Your task to perform on an android device: turn pop-ups off in chrome Image 0: 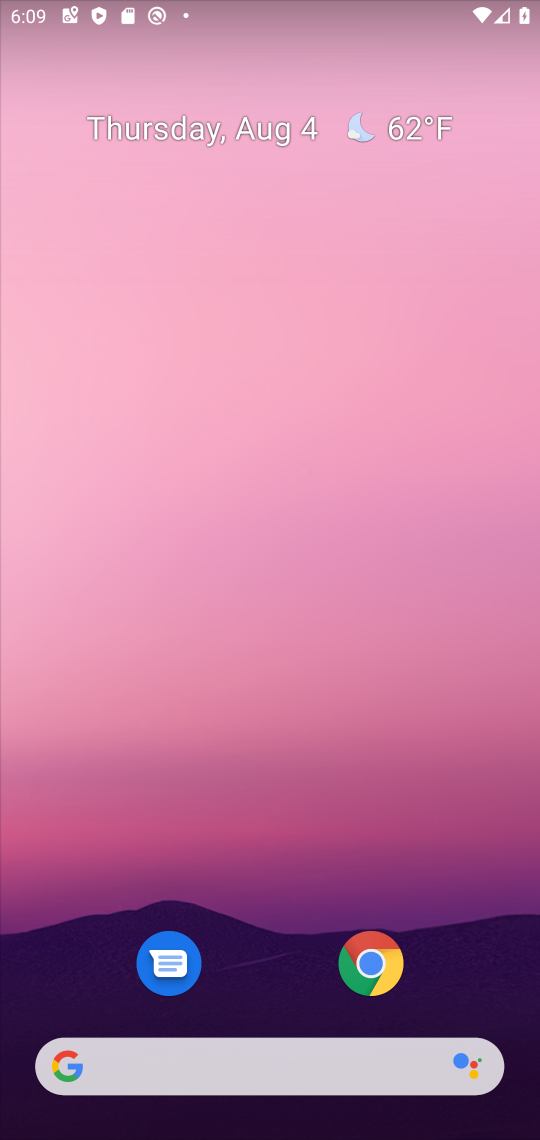
Step 0: click (378, 956)
Your task to perform on an android device: turn pop-ups off in chrome Image 1: 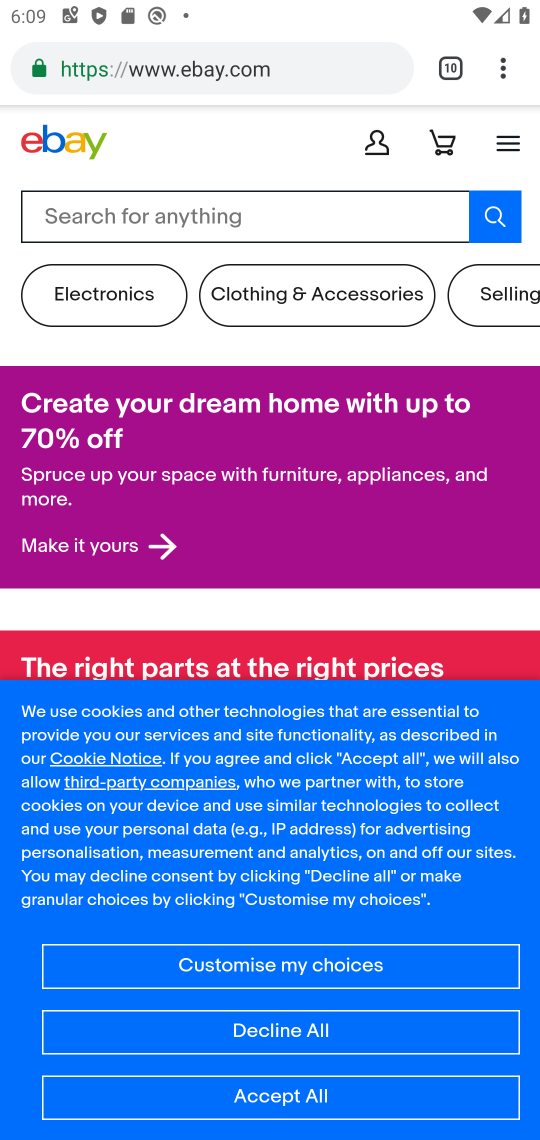
Step 1: click (510, 47)
Your task to perform on an android device: turn pop-ups off in chrome Image 2: 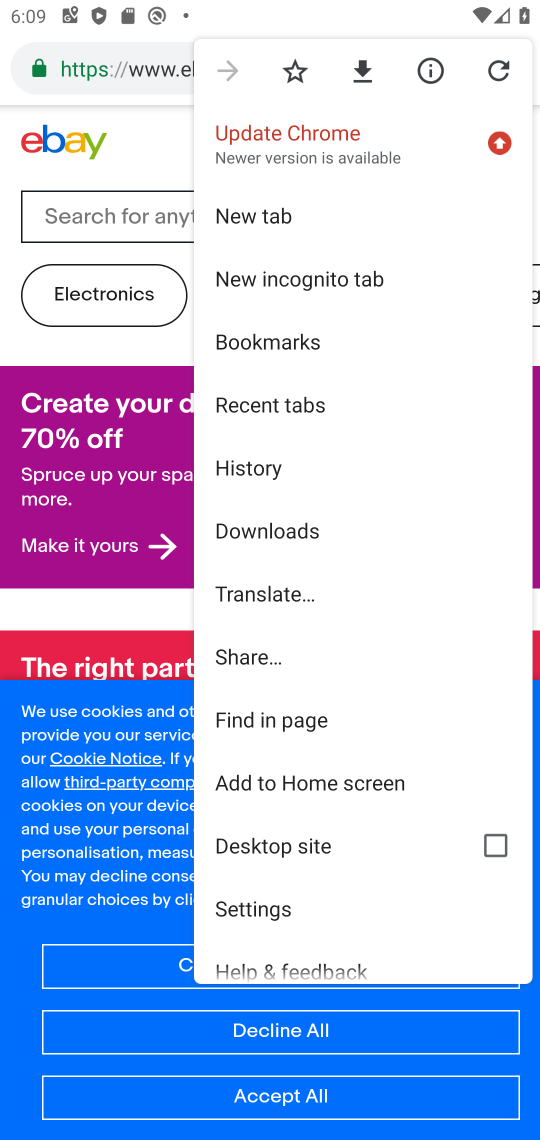
Step 2: click (264, 907)
Your task to perform on an android device: turn pop-ups off in chrome Image 3: 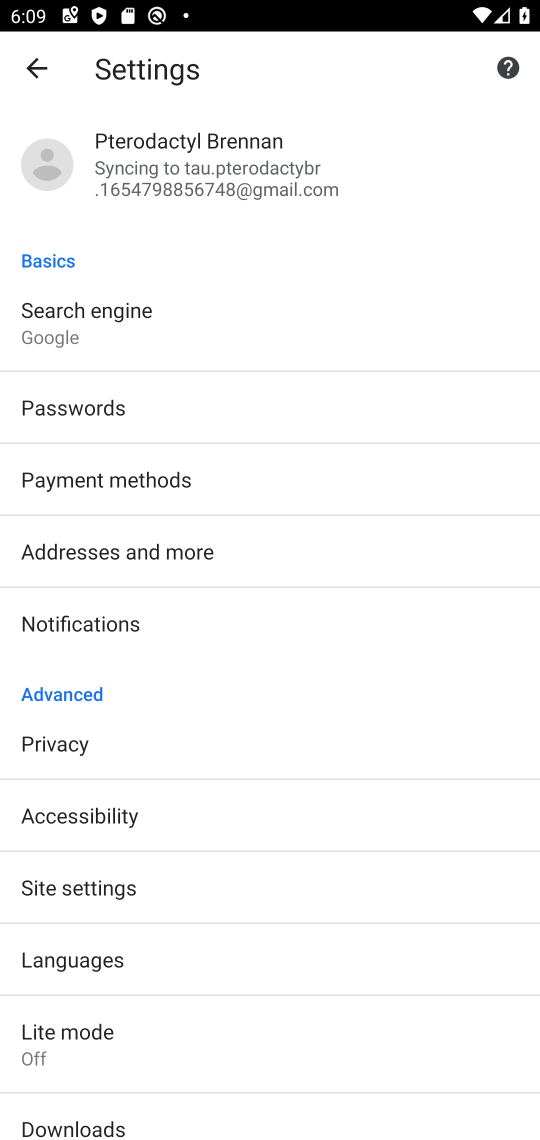
Step 3: drag from (232, 966) to (179, 307)
Your task to perform on an android device: turn pop-ups off in chrome Image 4: 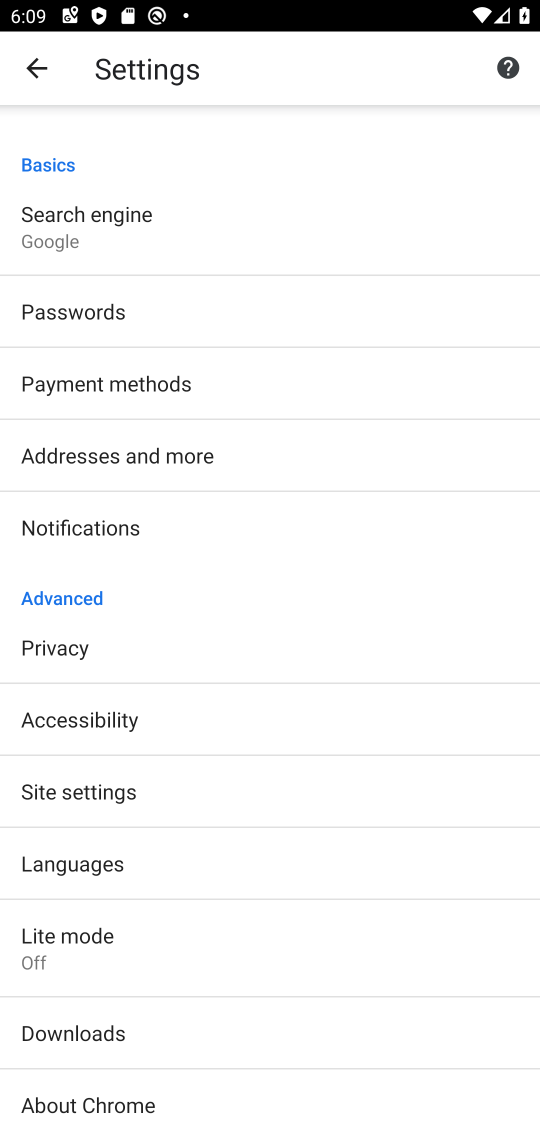
Step 4: click (105, 790)
Your task to perform on an android device: turn pop-ups off in chrome Image 5: 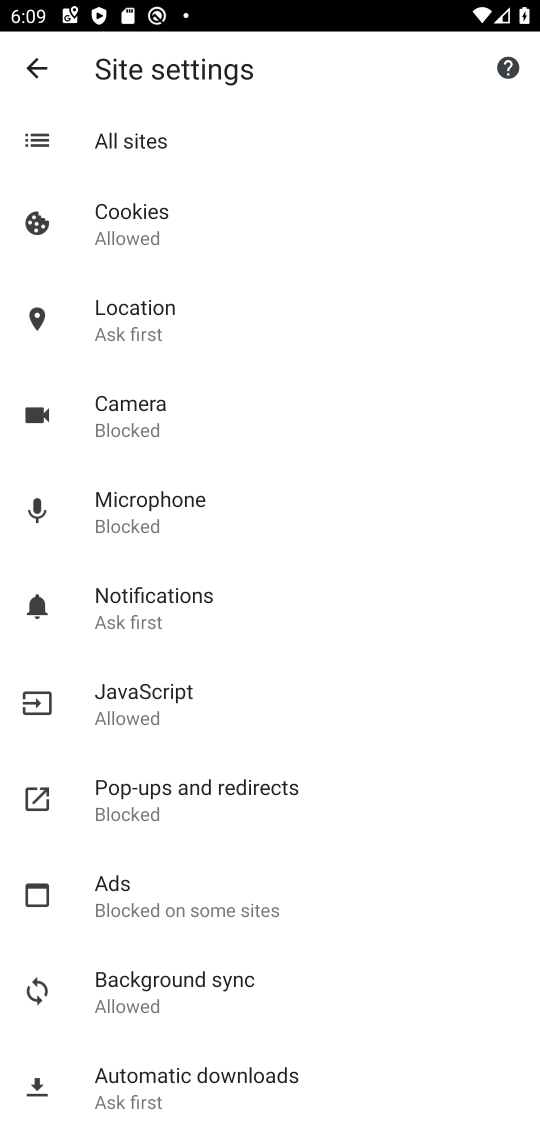
Step 5: click (170, 762)
Your task to perform on an android device: turn pop-ups off in chrome Image 6: 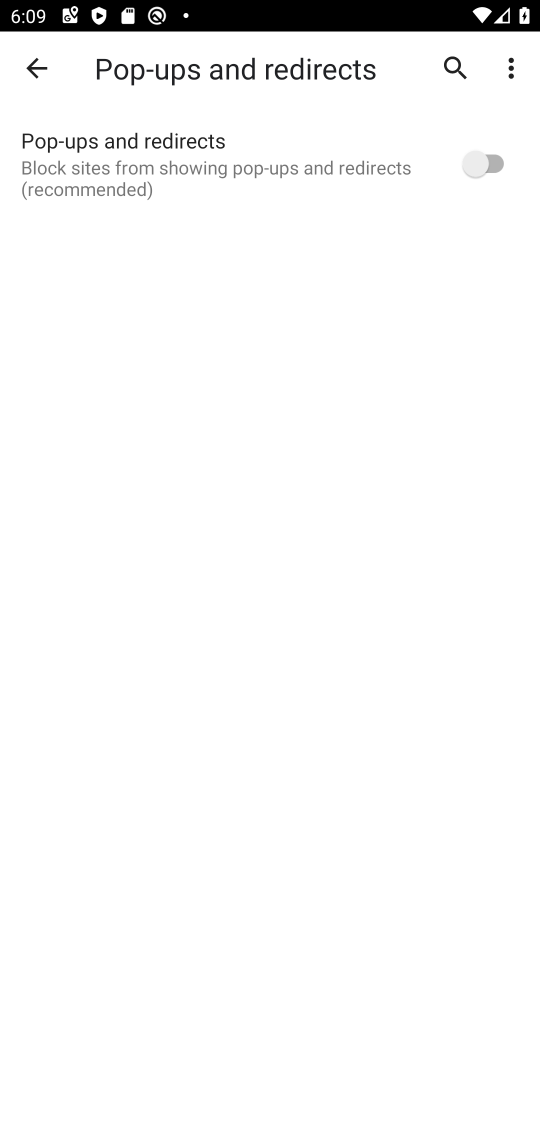
Step 6: task complete